Your task to perform on an android device: turn notification dots on Image 0: 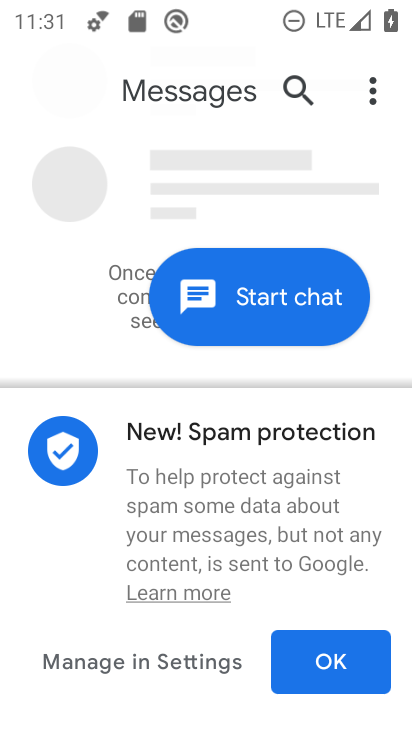
Step 0: press home button
Your task to perform on an android device: turn notification dots on Image 1: 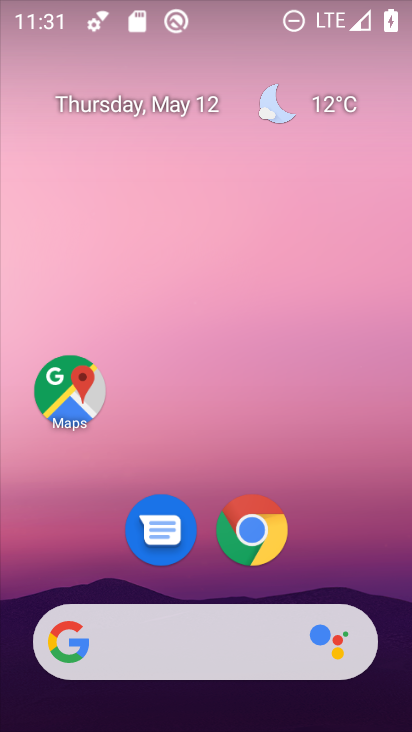
Step 1: drag from (233, 646) to (292, 232)
Your task to perform on an android device: turn notification dots on Image 2: 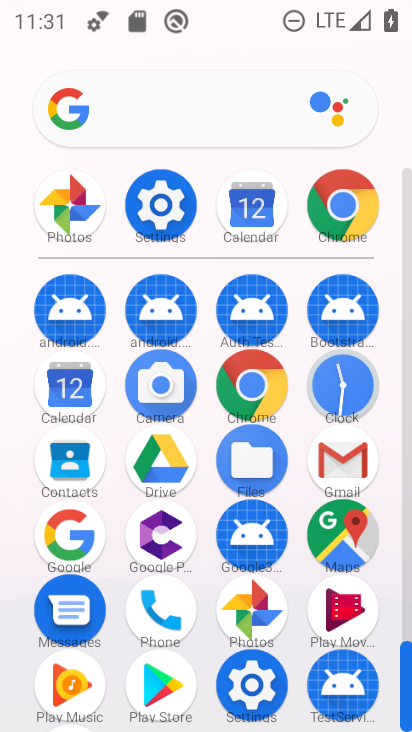
Step 2: click (170, 214)
Your task to perform on an android device: turn notification dots on Image 3: 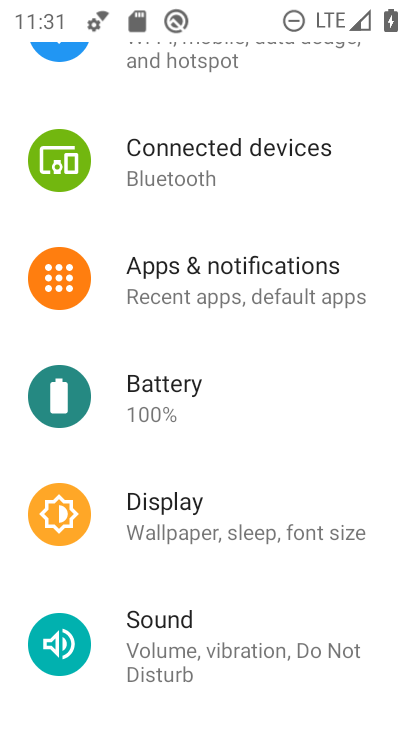
Step 3: click (250, 271)
Your task to perform on an android device: turn notification dots on Image 4: 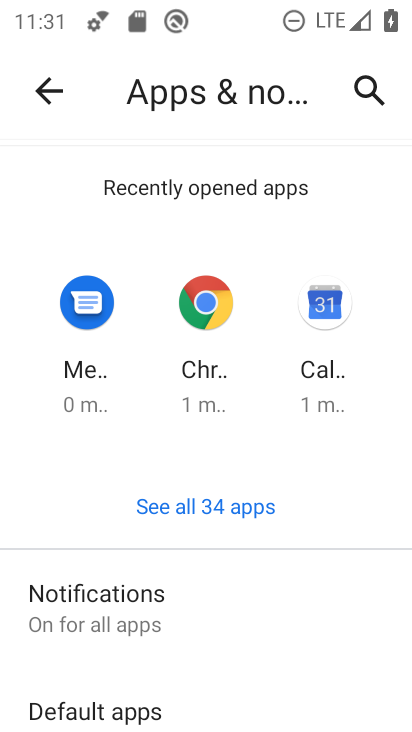
Step 4: click (114, 611)
Your task to perform on an android device: turn notification dots on Image 5: 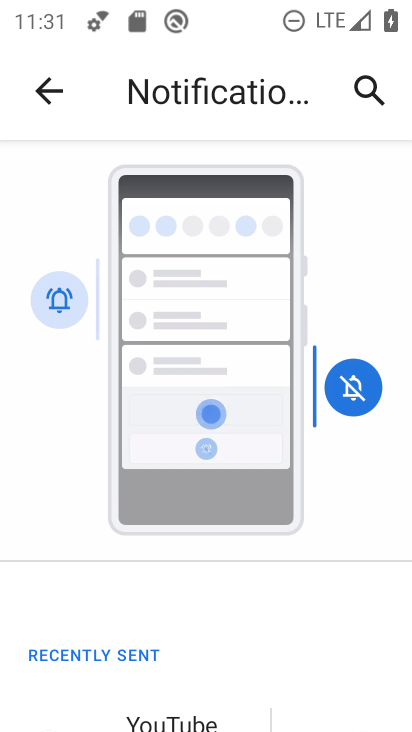
Step 5: drag from (191, 612) to (301, 256)
Your task to perform on an android device: turn notification dots on Image 6: 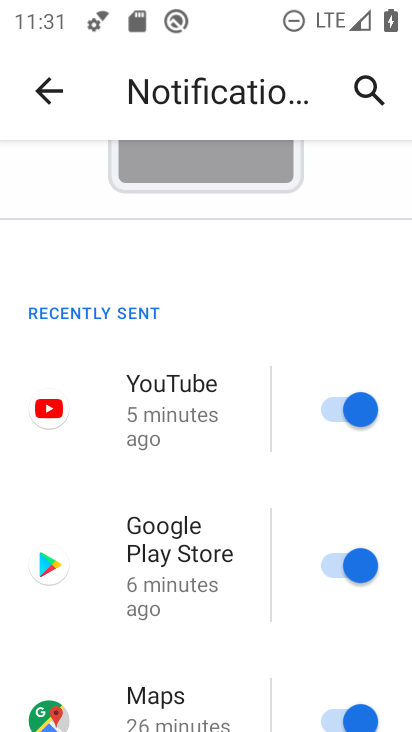
Step 6: drag from (197, 666) to (339, 110)
Your task to perform on an android device: turn notification dots on Image 7: 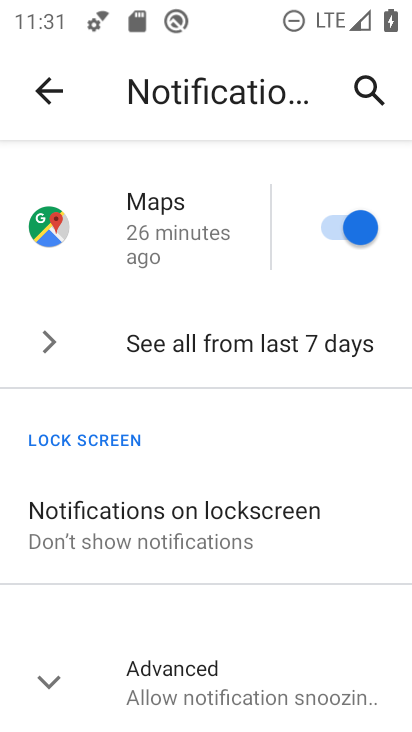
Step 7: click (171, 677)
Your task to perform on an android device: turn notification dots on Image 8: 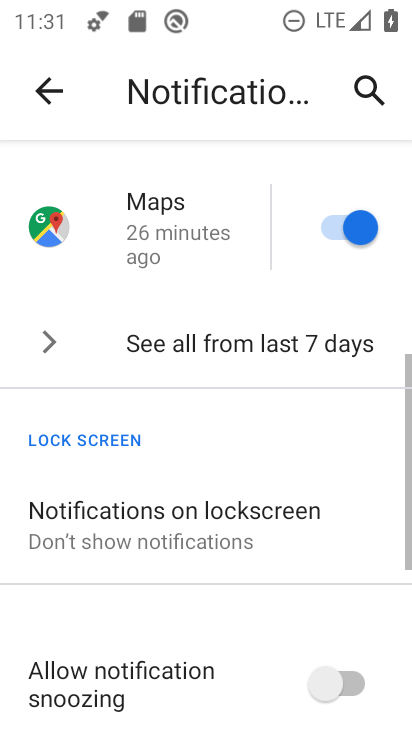
Step 8: task complete